Your task to perform on an android device: Open internet settings Image 0: 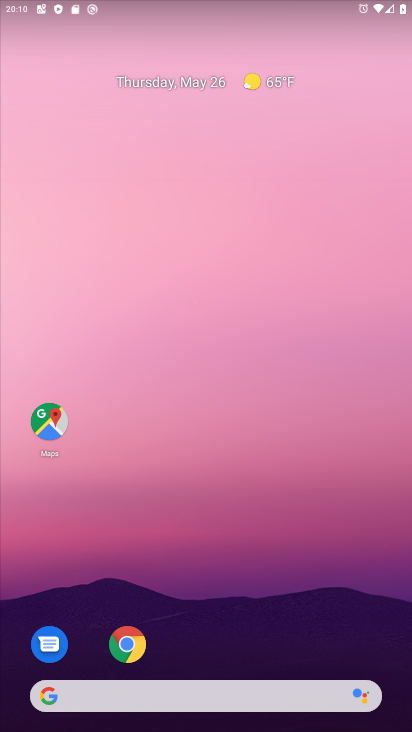
Step 0: drag from (177, 684) to (250, 310)
Your task to perform on an android device: Open internet settings Image 1: 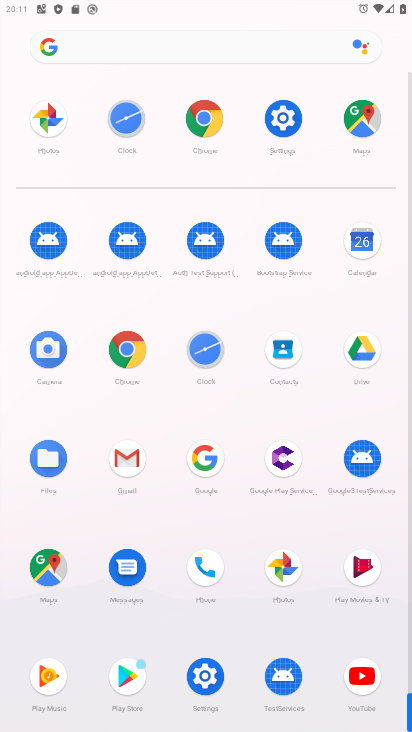
Step 1: click (295, 110)
Your task to perform on an android device: Open internet settings Image 2: 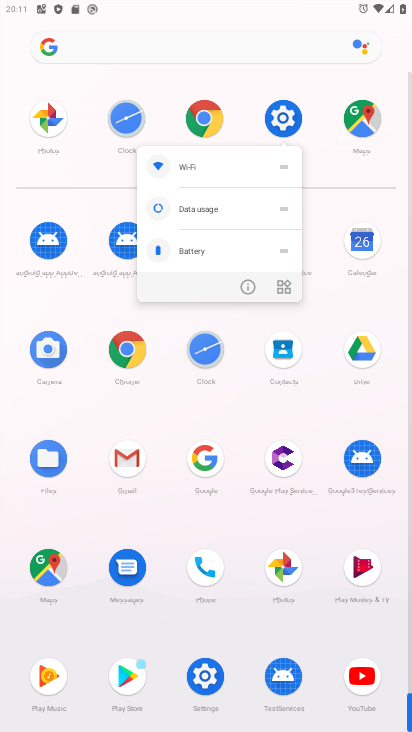
Step 2: click (248, 280)
Your task to perform on an android device: Open internet settings Image 3: 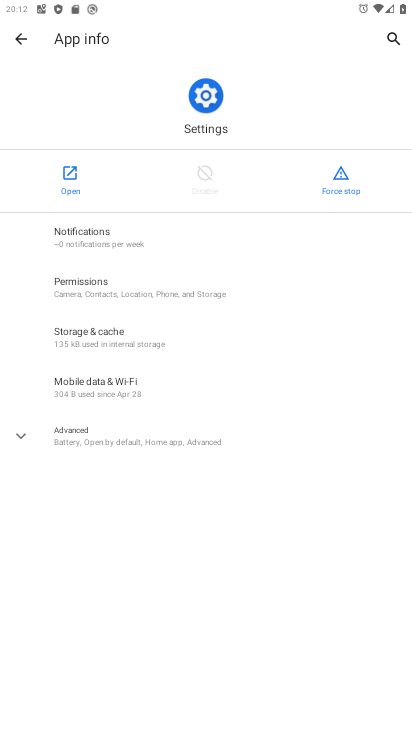
Step 3: click (64, 185)
Your task to perform on an android device: Open internet settings Image 4: 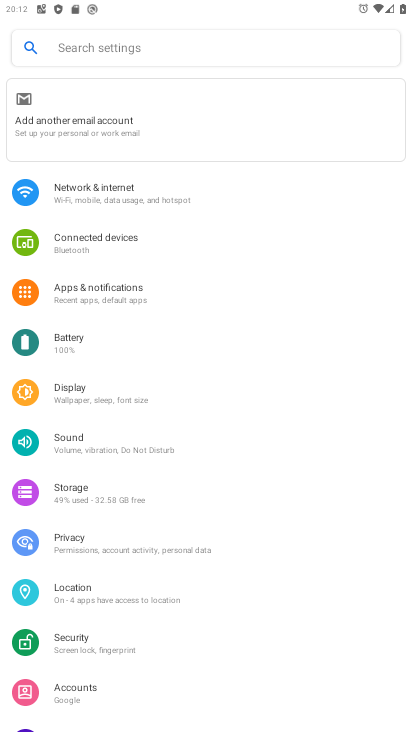
Step 4: drag from (234, 645) to (204, 298)
Your task to perform on an android device: Open internet settings Image 5: 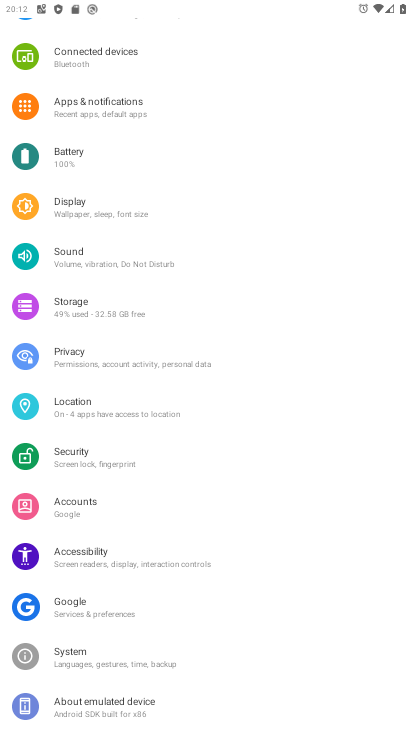
Step 5: drag from (184, 172) to (261, 718)
Your task to perform on an android device: Open internet settings Image 6: 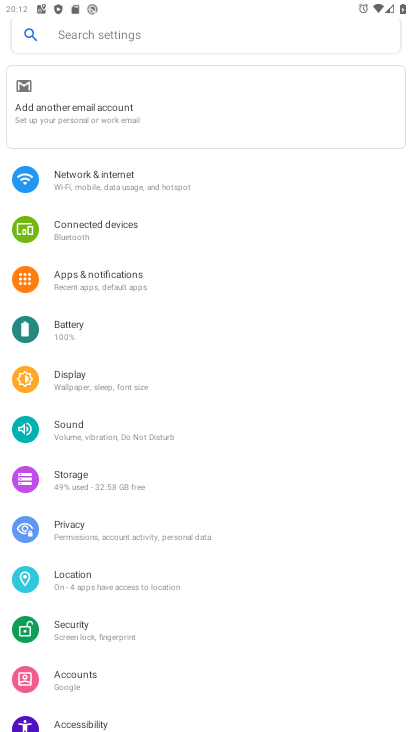
Step 6: click (153, 175)
Your task to perform on an android device: Open internet settings Image 7: 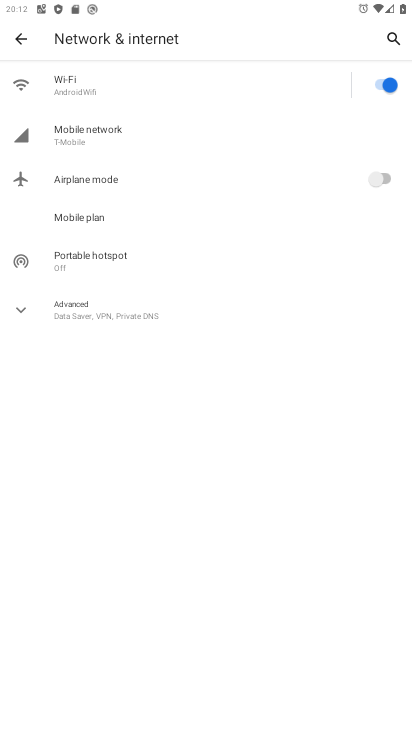
Step 7: task complete